Your task to perform on an android device: Show me the alarms in the clock app Image 0: 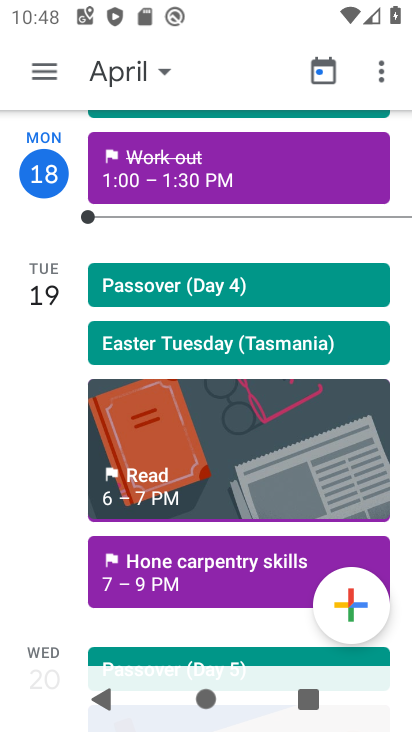
Step 0: press back button
Your task to perform on an android device: Show me the alarms in the clock app Image 1: 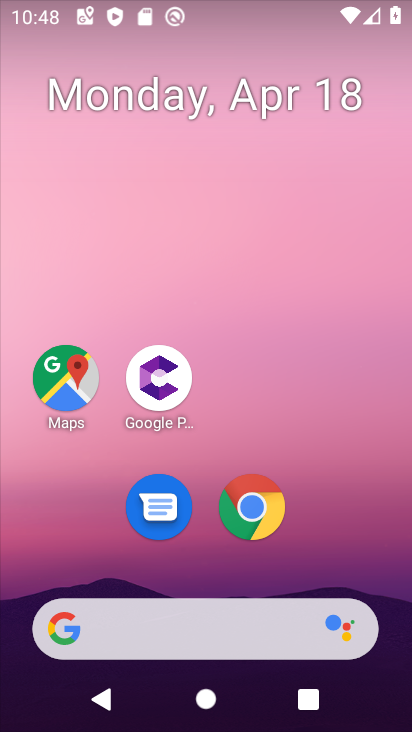
Step 1: drag from (309, 554) to (398, 35)
Your task to perform on an android device: Show me the alarms in the clock app Image 2: 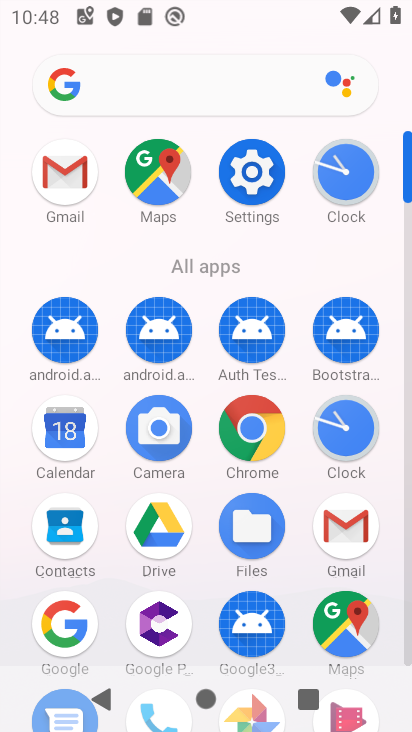
Step 2: click (352, 428)
Your task to perform on an android device: Show me the alarms in the clock app Image 3: 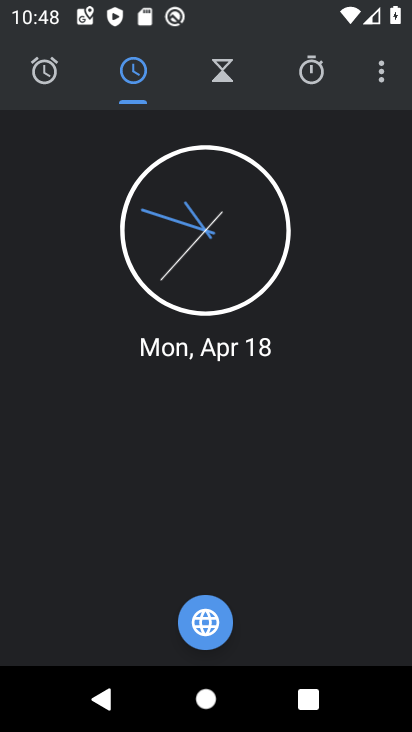
Step 3: click (37, 82)
Your task to perform on an android device: Show me the alarms in the clock app Image 4: 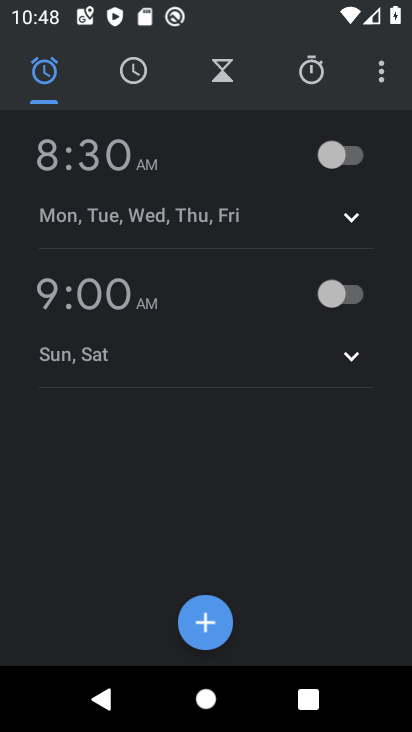
Step 4: task complete